Your task to perform on an android device: Search for Italian restaurants on Maps Image 0: 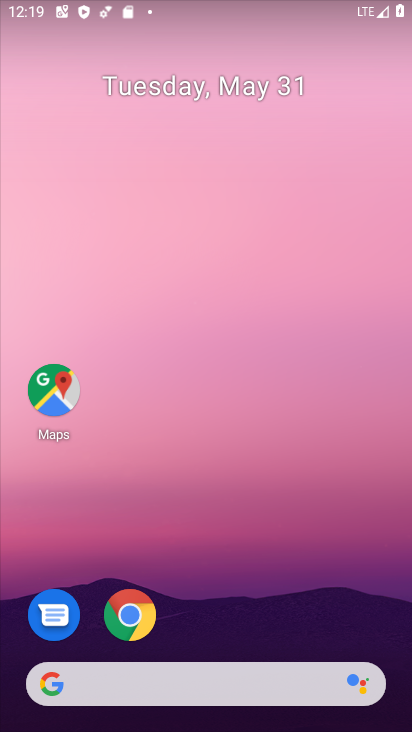
Step 0: click (60, 390)
Your task to perform on an android device: Search for Italian restaurants on Maps Image 1: 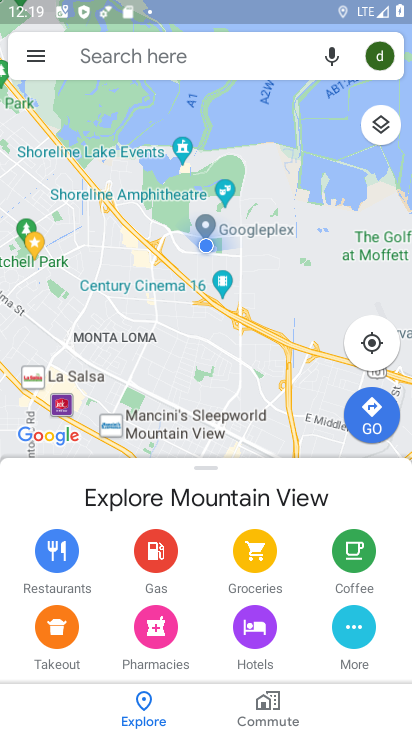
Step 1: click (191, 58)
Your task to perform on an android device: Search for Italian restaurants on Maps Image 2: 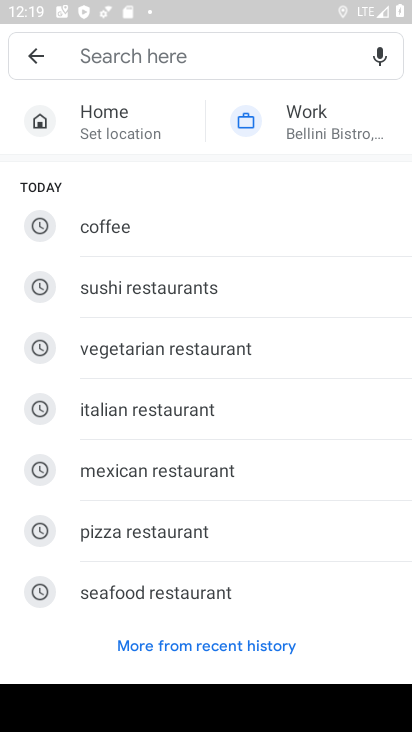
Step 2: click (158, 411)
Your task to perform on an android device: Search for Italian restaurants on Maps Image 3: 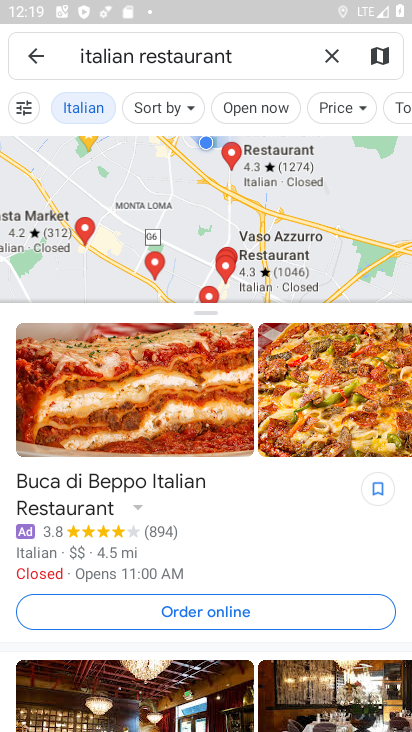
Step 3: task complete